Your task to perform on an android device: Open Android settings Image 0: 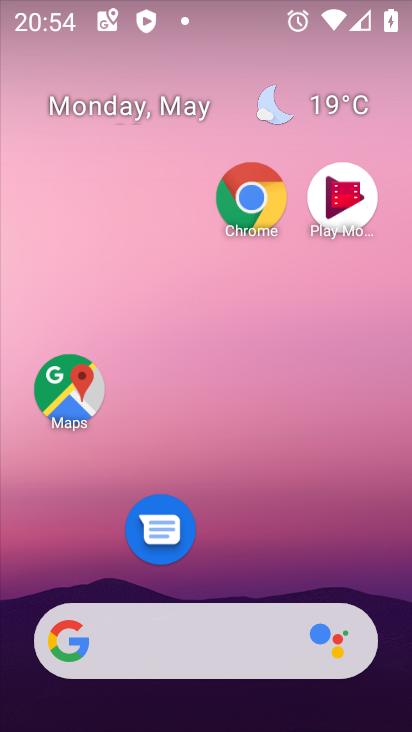
Step 0: drag from (254, 577) to (112, 6)
Your task to perform on an android device: Open Android settings Image 1: 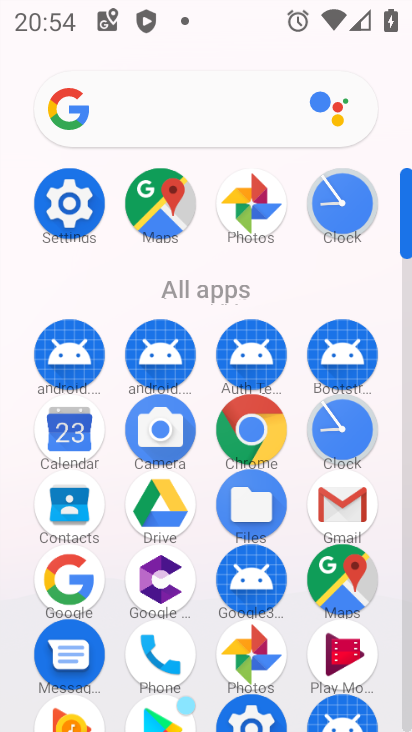
Step 1: click (82, 203)
Your task to perform on an android device: Open Android settings Image 2: 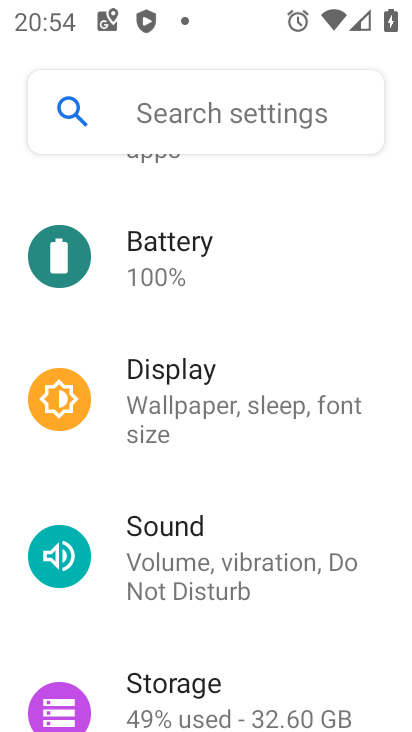
Step 2: drag from (208, 640) to (223, 24)
Your task to perform on an android device: Open Android settings Image 3: 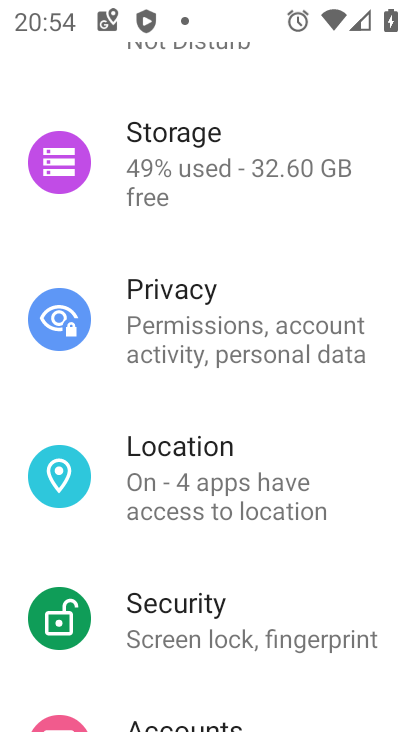
Step 3: drag from (202, 624) to (220, 191)
Your task to perform on an android device: Open Android settings Image 4: 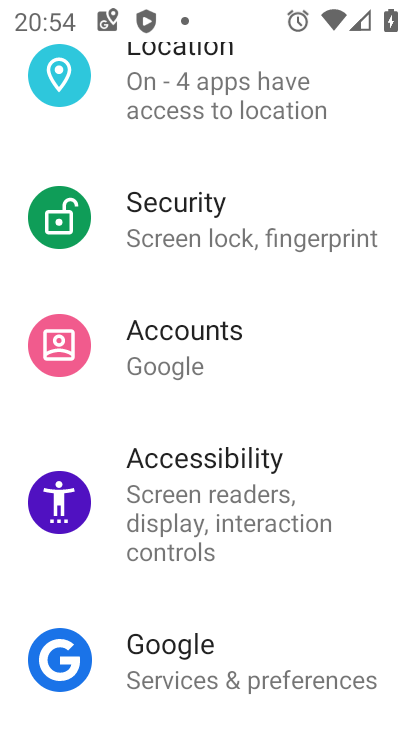
Step 4: drag from (250, 697) to (257, 158)
Your task to perform on an android device: Open Android settings Image 5: 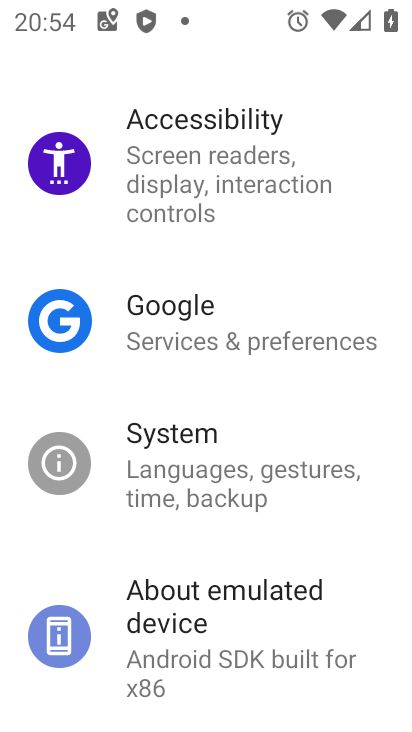
Step 5: click (200, 627)
Your task to perform on an android device: Open Android settings Image 6: 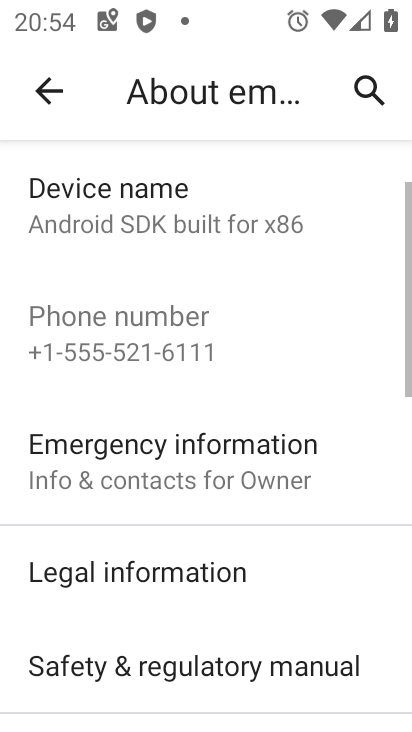
Step 6: drag from (200, 628) to (193, 52)
Your task to perform on an android device: Open Android settings Image 7: 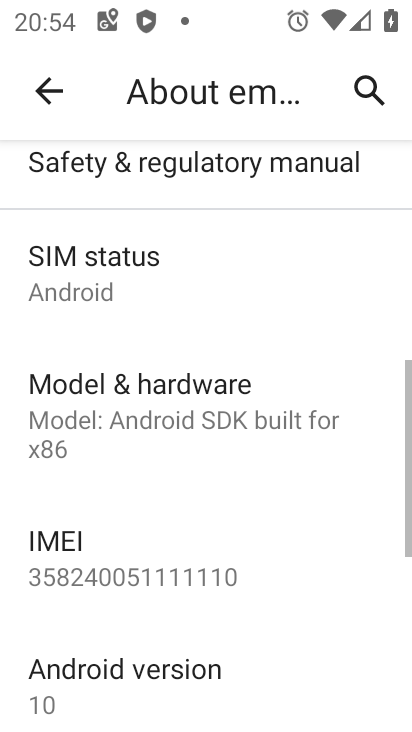
Step 7: click (161, 684)
Your task to perform on an android device: Open Android settings Image 8: 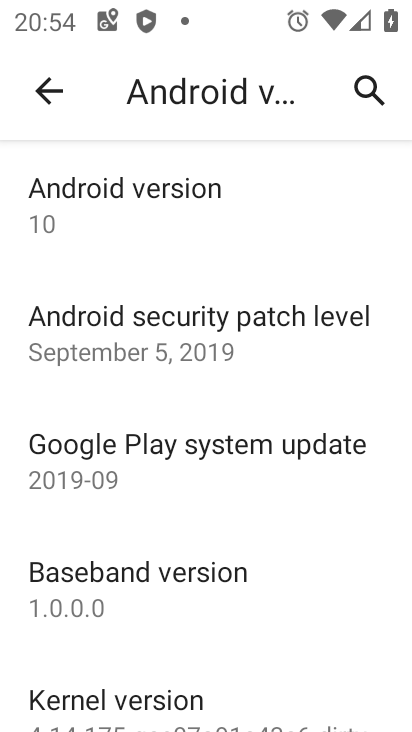
Step 8: click (96, 237)
Your task to perform on an android device: Open Android settings Image 9: 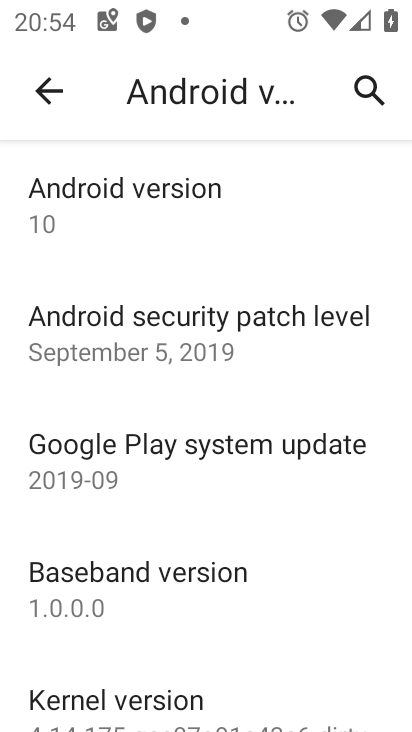
Step 9: task complete